Your task to perform on an android device: Search for Mexican restaurants on Maps Image 0: 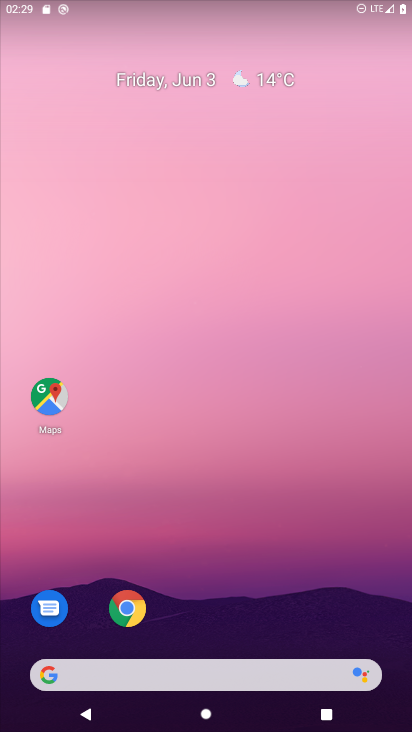
Step 0: click (48, 396)
Your task to perform on an android device: Search for Mexican restaurants on Maps Image 1: 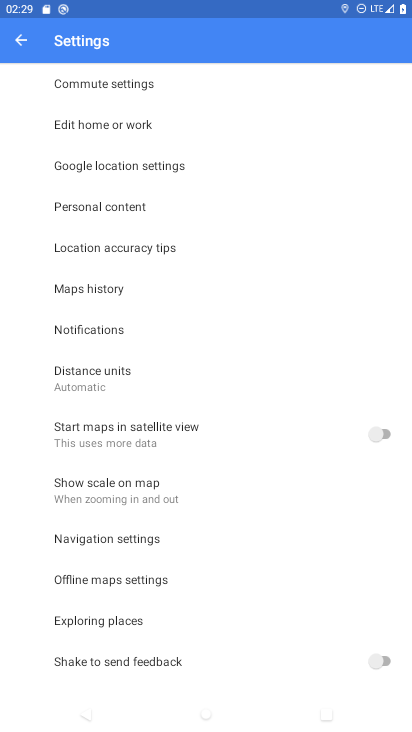
Step 1: click (19, 45)
Your task to perform on an android device: Search for Mexican restaurants on Maps Image 2: 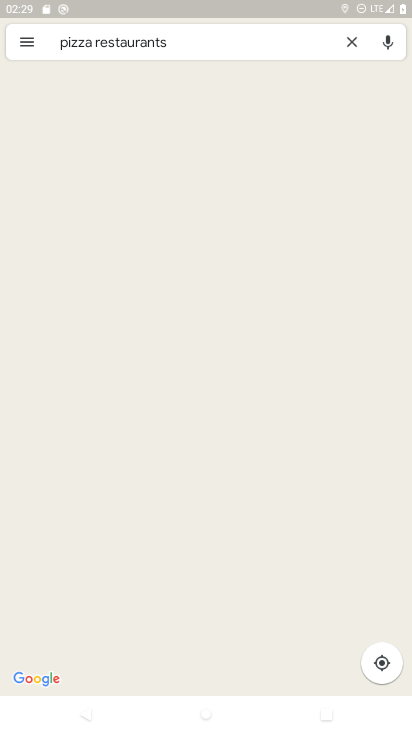
Step 2: click (197, 46)
Your task to perform on an android device: Search for Mexican restaurants on Maps Image 3: 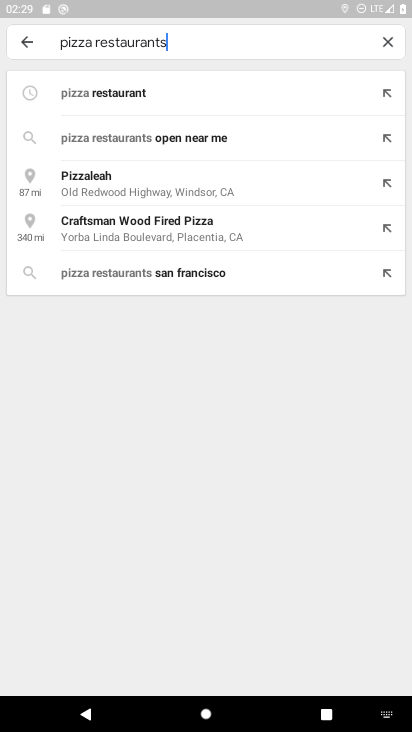
Step 3: click (382, 42)
Your task to perform on an android device: Search for Mexican restaurants on Maps Image 4: 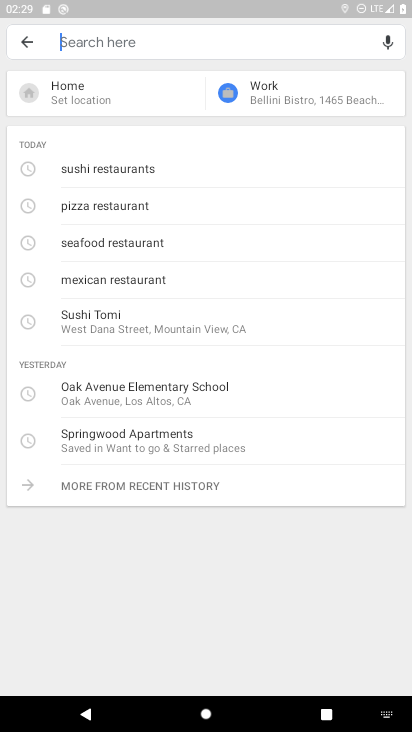
Step 4: type "Mexican restaurants"
Your task to perform on an android device: Search for Mexican restaurants on Maps Image 5: 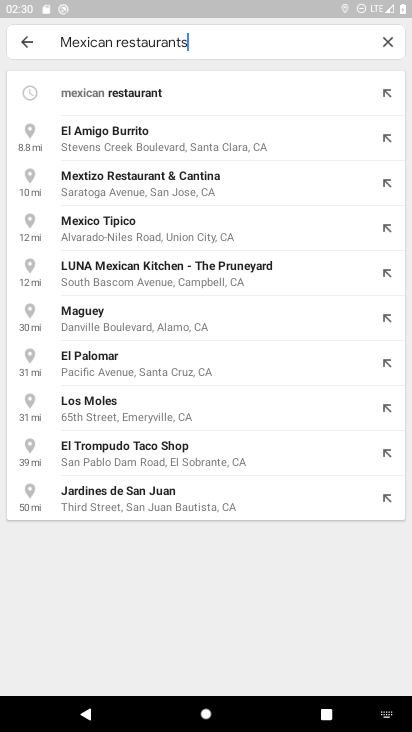
Step 5: press enter
Your task to perform on an android device: Search for Mexican restaurants on Maps Image 6: 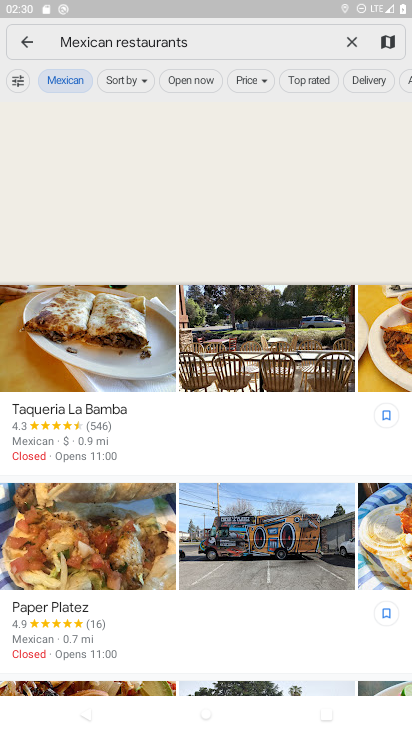
Step 6: task complete